Your task to perform on an android device: see creations saved in the google photos Image 0: 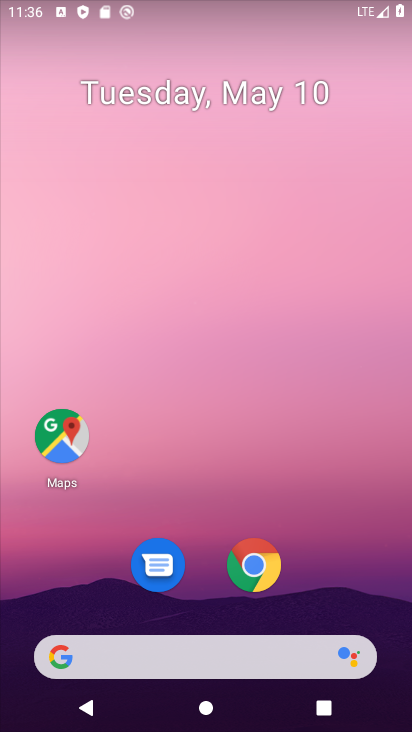
Step 0: drag from (87, 449) to (251, 108)
Your task to perform on an android device: see creations saved in the google photos Image 1: 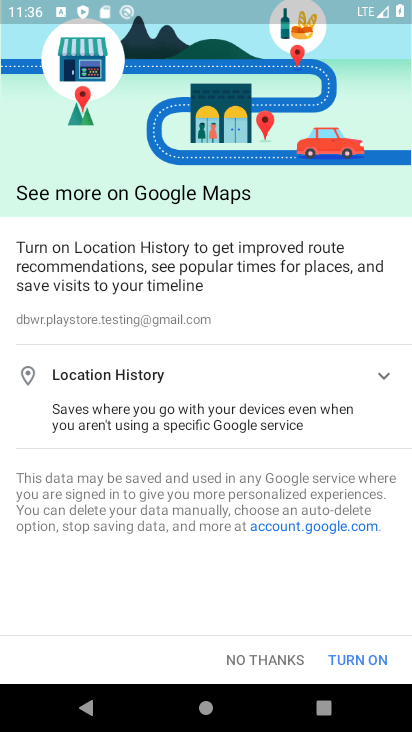
Step 1: press home button
Your task to perform on an android device: see creations saved in the google photos Image 2: 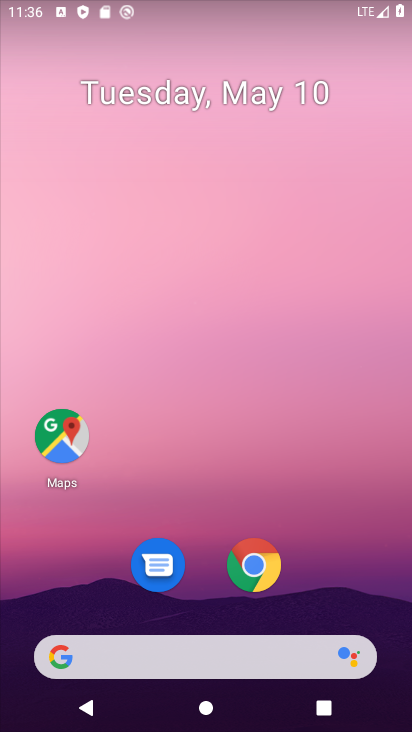
Step 2: drag from (14, 634) to (277, 100)
Your task to perform on an android device: see creations saved in the google photos Image 3: 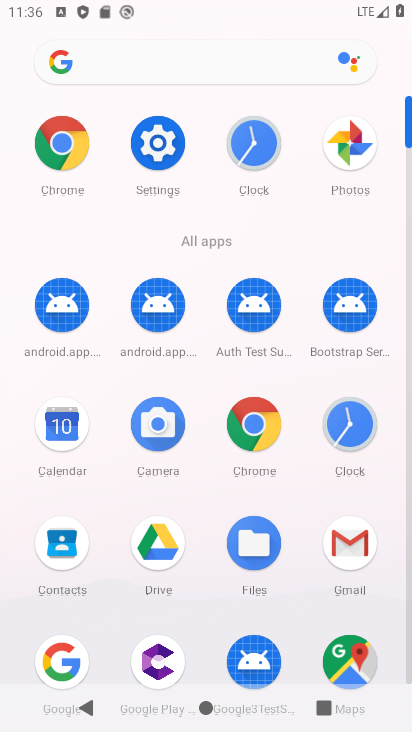
Step 3: click (341, 160)
Your task to perform on an android device: see creations saved in the google photos Image 4: 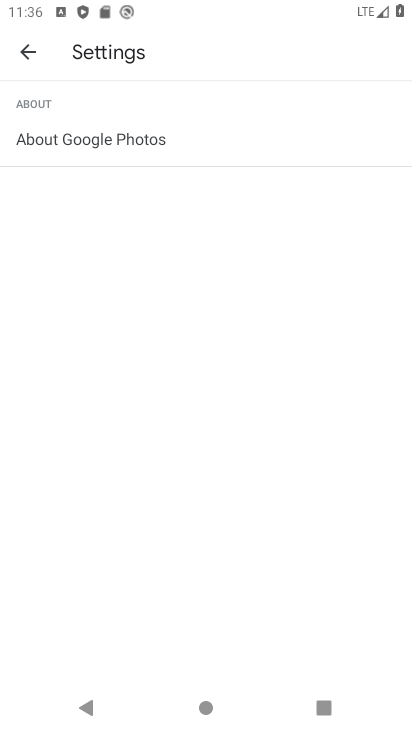
Step 4: press back button
Your task to perform on an android device: see creations saved in the google photos Image 5: 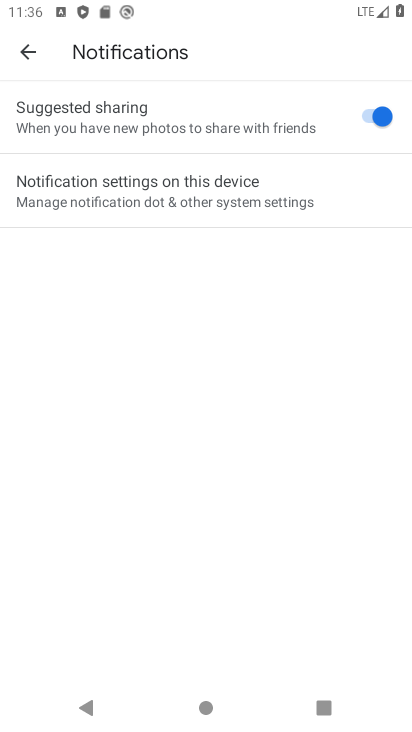
Step 5: press back button
Your task to perform on an android device: see creations saved in the google photos Image 6: 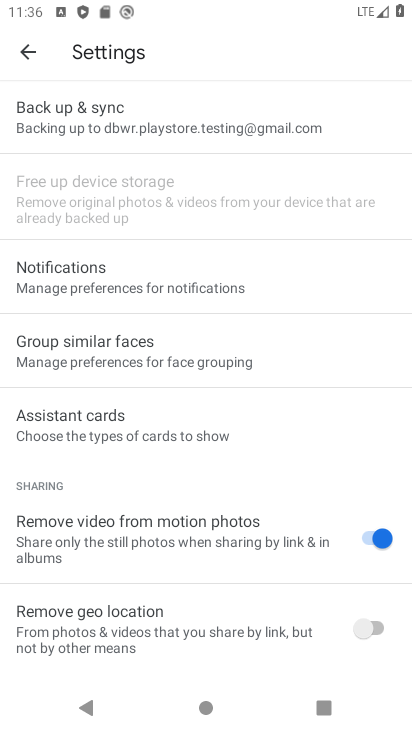
Step 6: press back button
Your task to perform on an android device: see creations saved in the google photos Image 7: 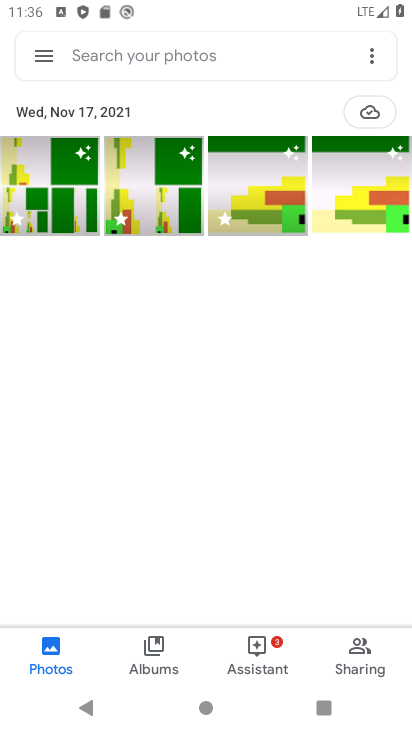
Step 7: click (172, 51)
Your task to perform on an android device: see creations saved in the google photos Image 8: 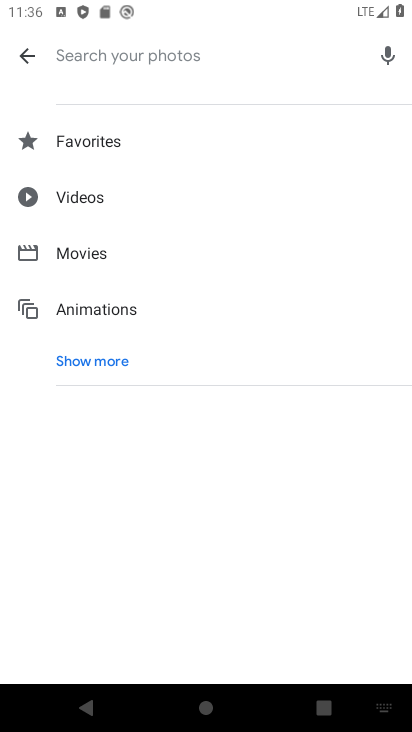
Step 8: click (98, 355)
Your task to perform on an android device: see creations saved in the google photos Image 9: 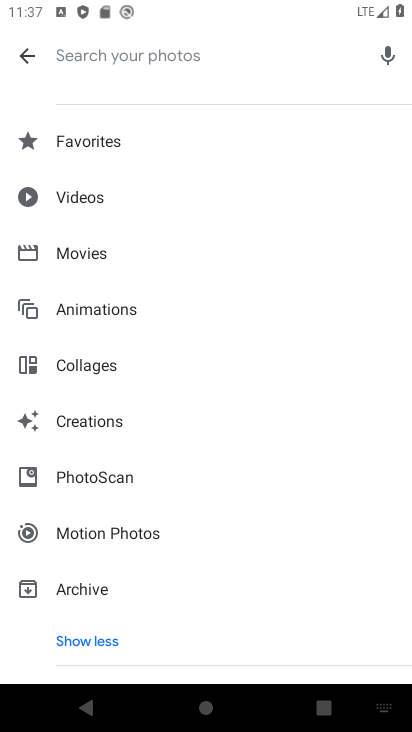
Step 9: click (95, 426)
Your task to perform on an android device: see creations saved in the google photos Image 10: 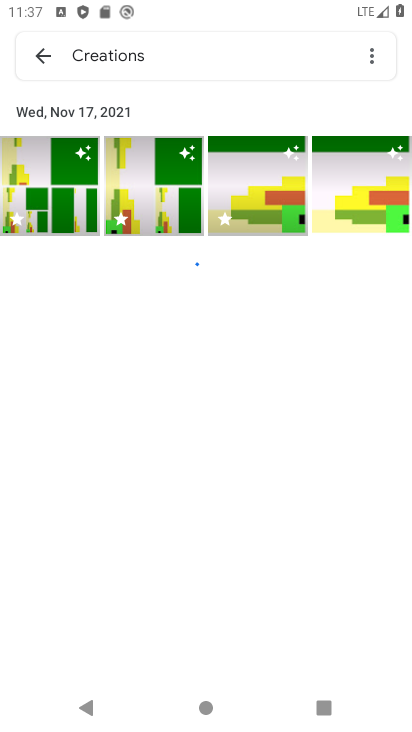
Step 10: task complete